Your task to perform on an android device: When is my next meeting? Image 0: 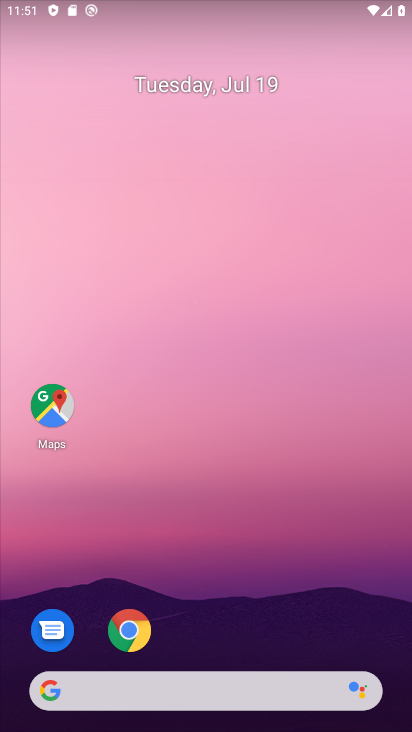
Step 0: press home button
Your task to perform on an android device: When is my next meeting? Image 1: 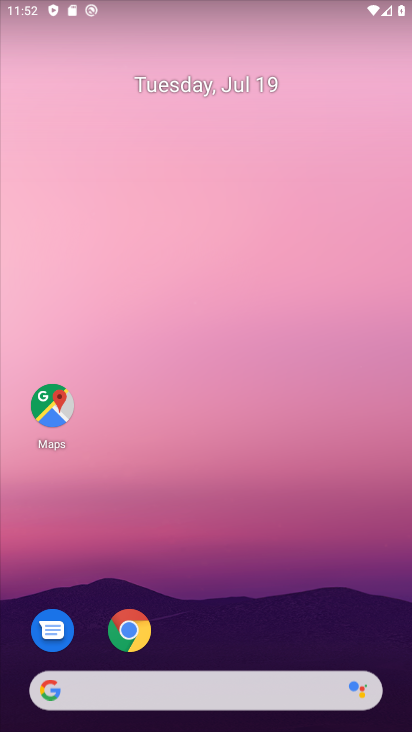
Step 1: drag from (98, 456) to (206, 83)
Your task to perform on an android device: When is my next meeting? Image 2: 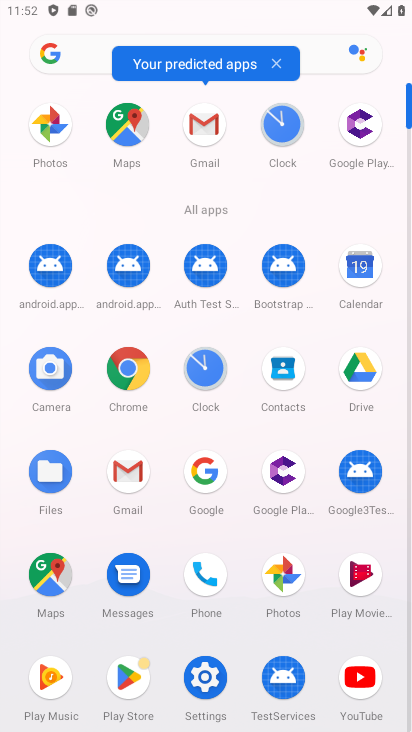
Step 2: click (369, 265)
Your task to perform on an android device: When is my next meeting? Image 3: 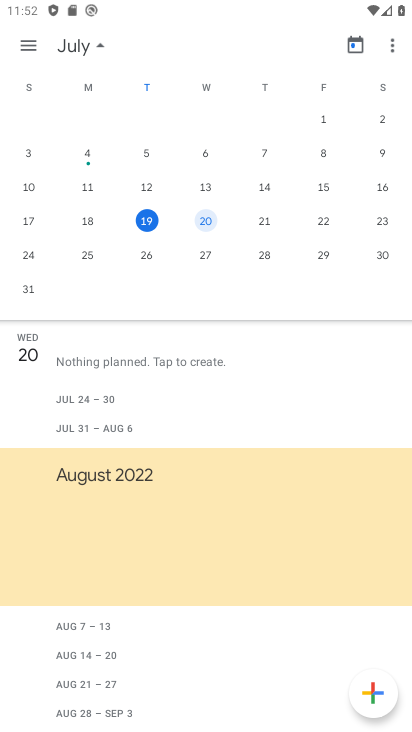
Step 3: click (217, 222)
Your task to perform on an android device: When is my next meeting? Image 4: 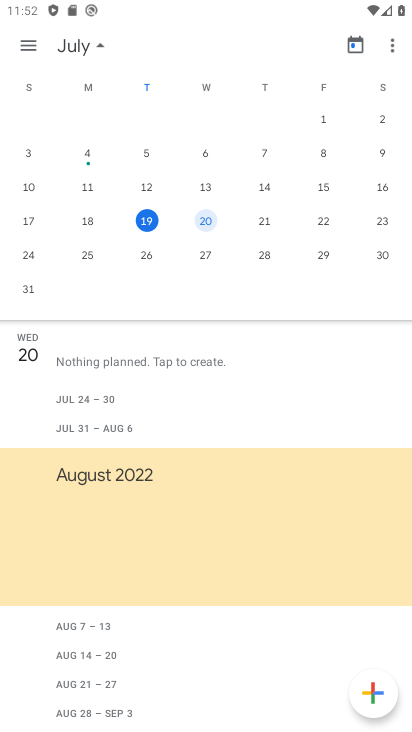
Step 4: click (214, 221)
Your task to perform on an android device: When is my next meeting? Image 5: 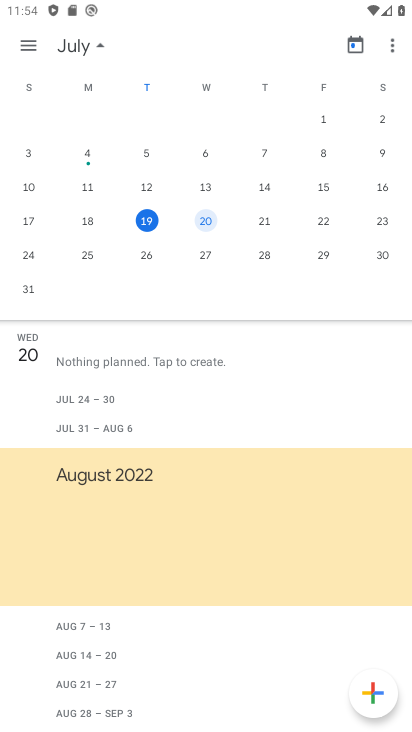
Step 5: task complete